Your task to perform on an android device: toggle translation in the chrome app Image 0: 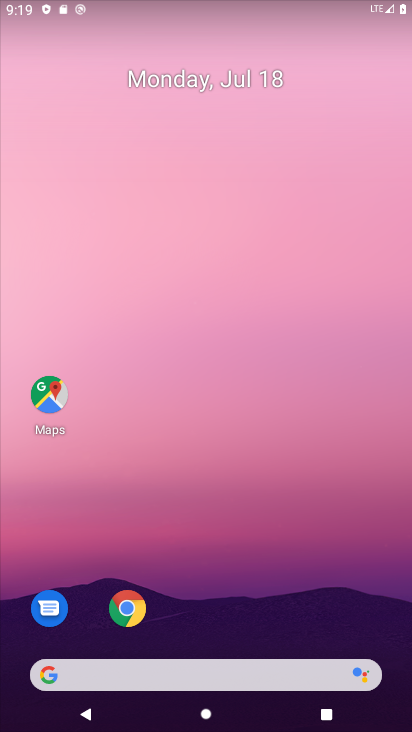
Step 0: click (402, 86)
Your task to perform on an android device: toggle translation in the chrome app Image 1: 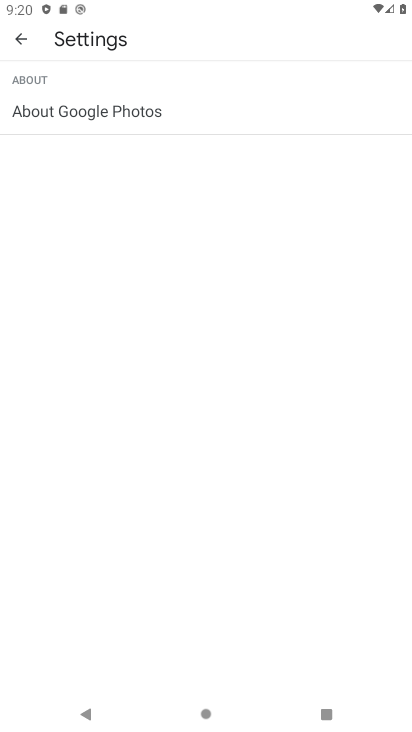
Step 1: click (20, 37)
Your task to perform on an android device: toggle translation in the chrome app Image 2: 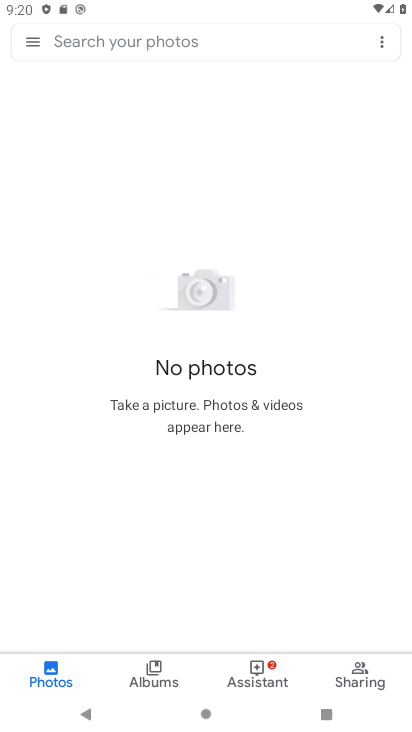
Step 2: press back button
Your task to perform on an android device: toggle translation in the chrome app Image 3: 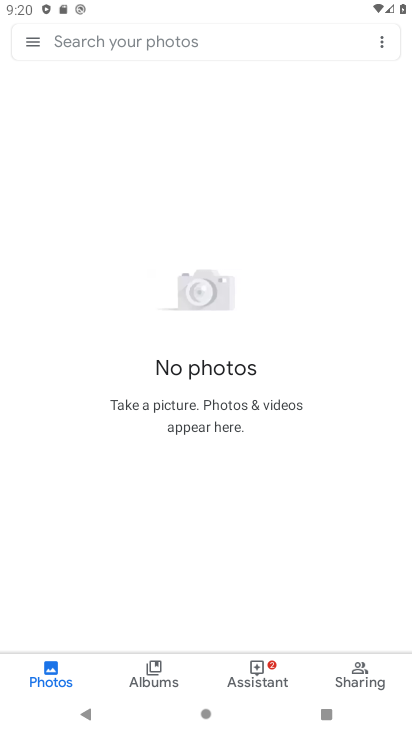
Step 3: press back button
Your task to perform on an android device: toggle translation in the chrome app Image 4: 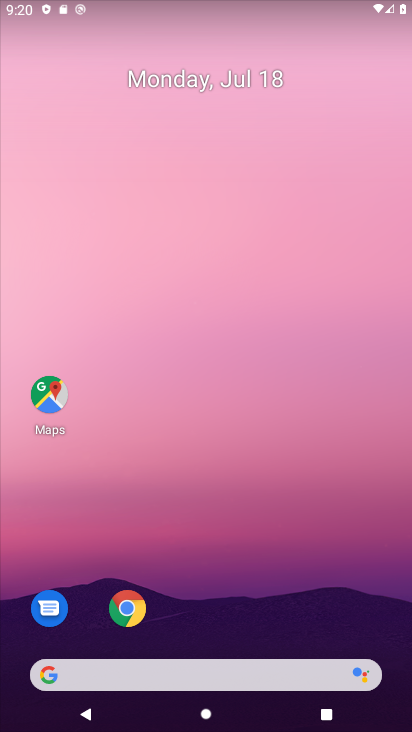
Step 4: drag from (205, 655) to (76, 132)
Your task to perform on an android device: toggle translation in the chrome app Image 5: 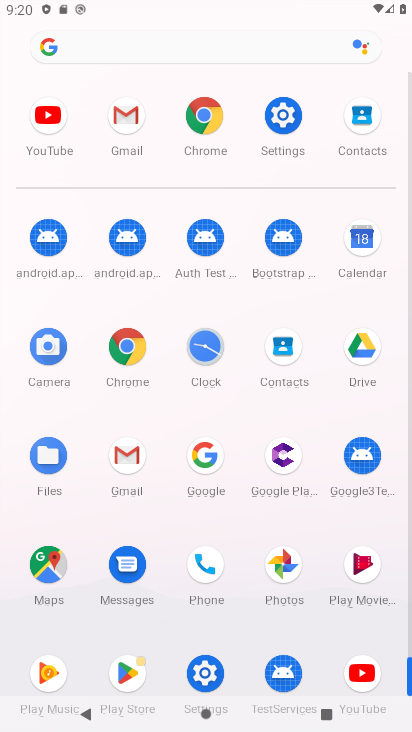
Step 5: click (204, 125)
Your task to perform on an android device: toggle translation in the chrome app Image 6: 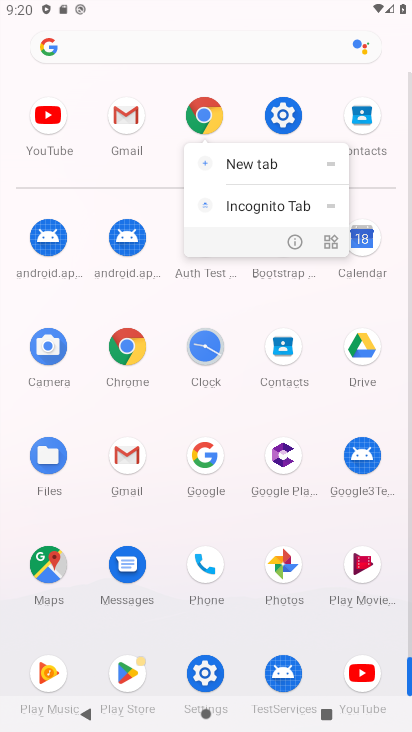
Step 6: click (204, 118)
Your task to perform on an android device: toggle translation in the chrome app Image 7: 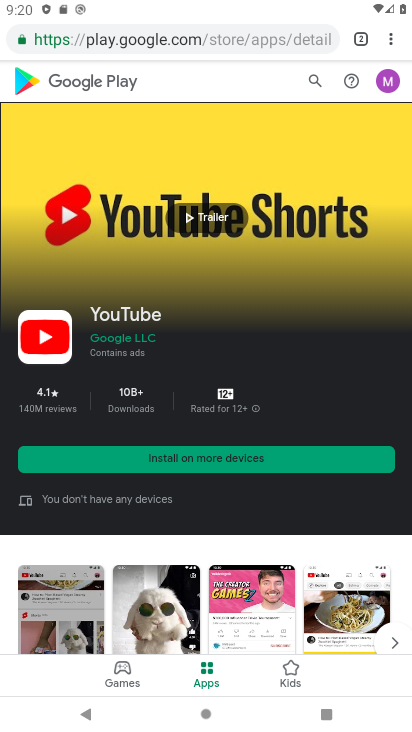
Step 7: drag from (390, 36) to (251, 471)
Your task to perform on an android device: toggle translation in the chrome app Image 8: 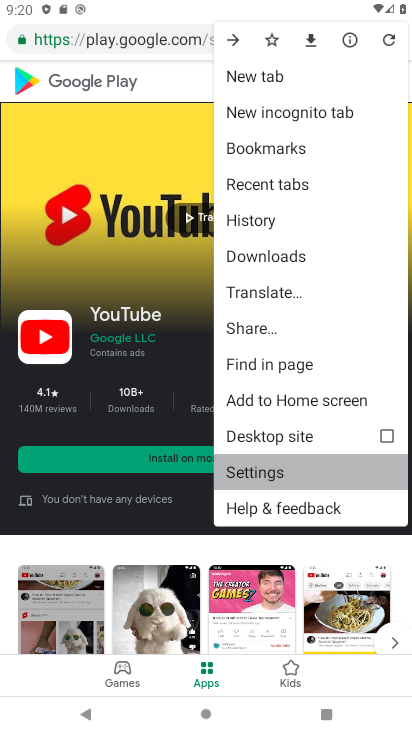
Step 8: click (251, 471)
Your task to perform on an android device: toggle translation in the chrome app Image 9: 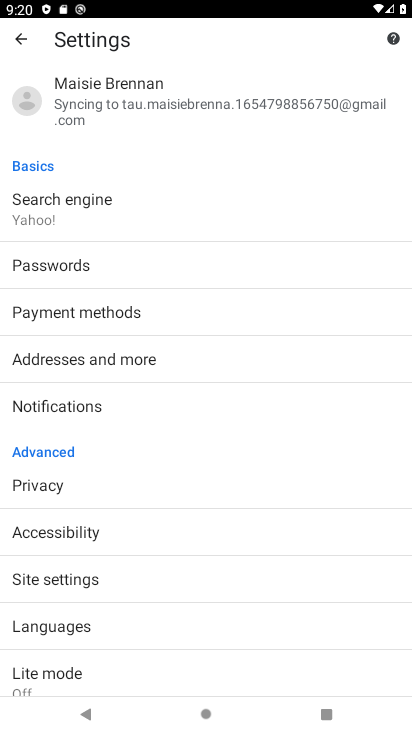
Step 9: click (75, 637)
Your task to perform on an android device: toggle translation in the chrome app Image 10: 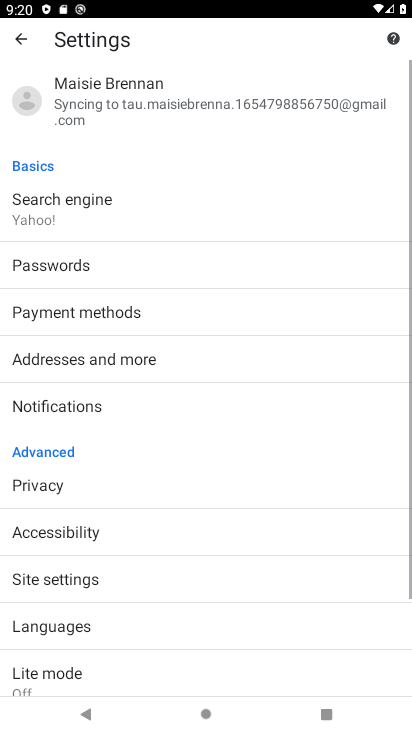
Step 10: click (78, 637)
Your task to perform on an android device: toggle translation in the chrome app Image 11: 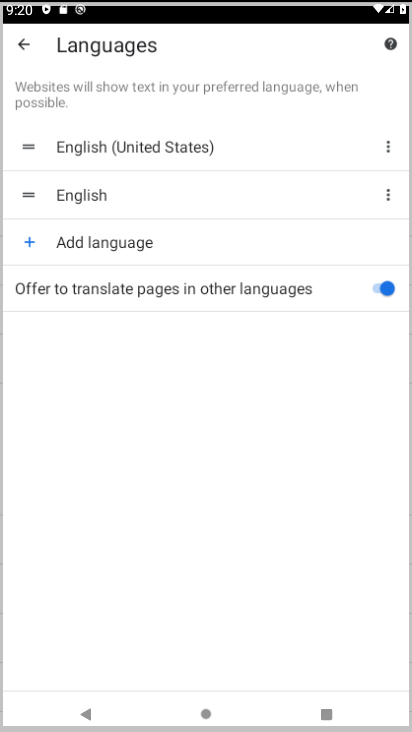
Step 11: click (79, 636)
Your task to perform on an android device: toggle translation in the chrome app Image 12: 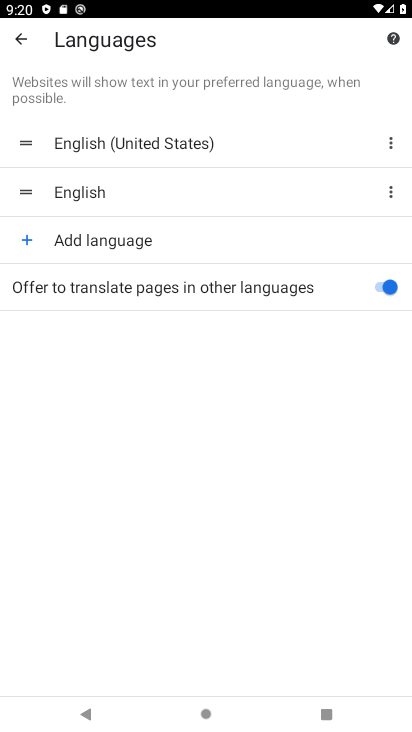
Step 12: click (382, 276)
Your task to perform on an android device: toggle translation in the chrome app Image 13: 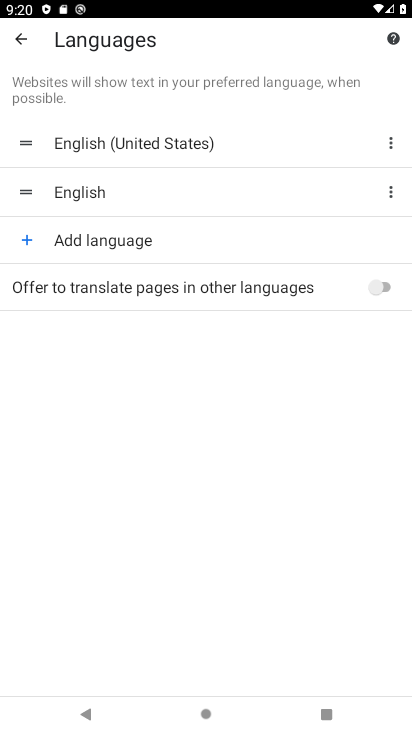
Step 13: task complete